Your task to perform on an android device: Go to Maps Image 0: 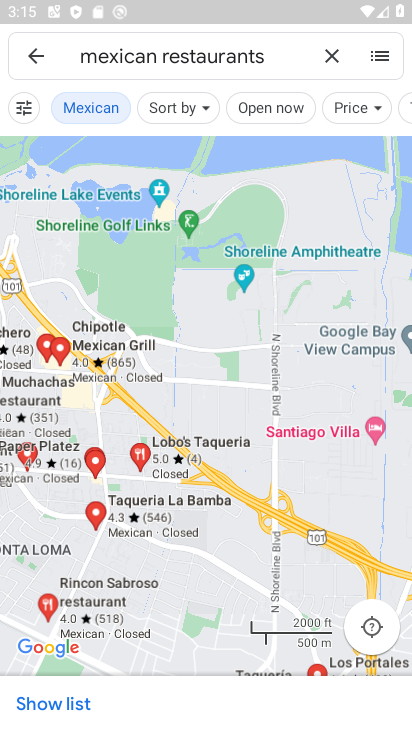
Step 0: press home button
Your task to perform on an android device: Go to Maps Image 1: 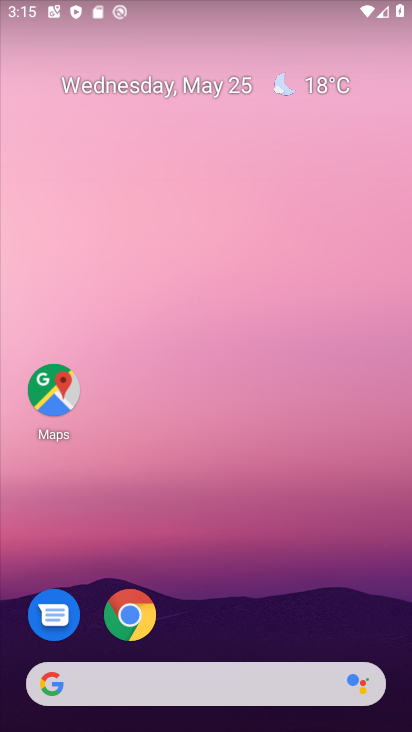
Step 1: click (40, 383)
Your task to perform on an android device: Go to Maps Image 2: 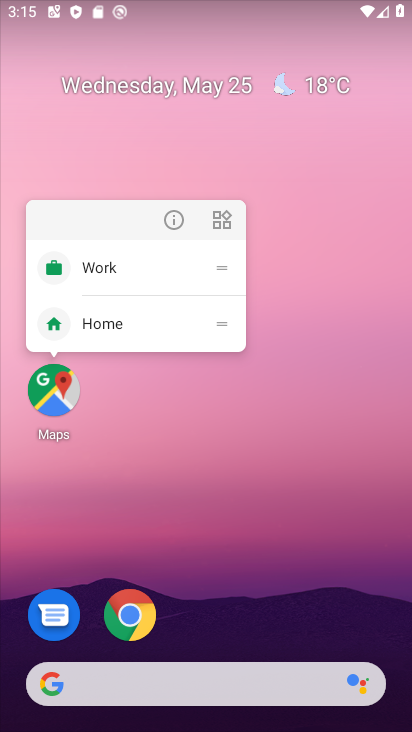
Step 2: click (68, 404)
Your task to perform on an android device: Go to Maps Image 3: 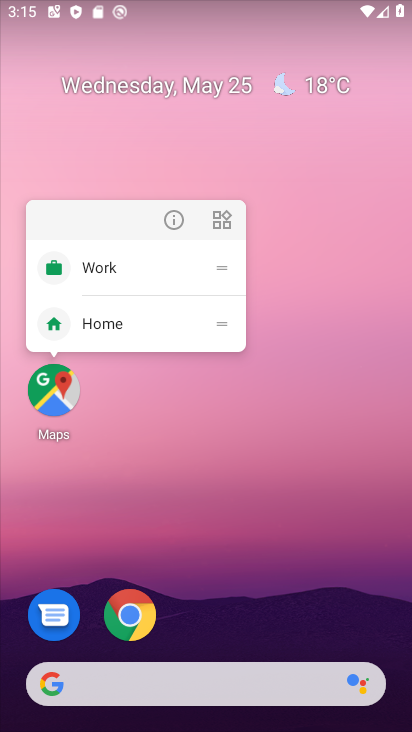
Step 3: click (68, 404)
Your task to perform on an android device: Go to Maps Image 4: 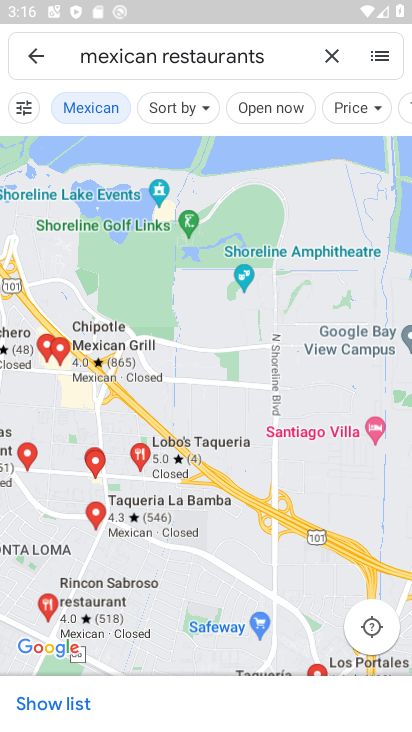
Step 4: task complete